Your task to perform on an android device: turn on translation in the chrome app Image 0: 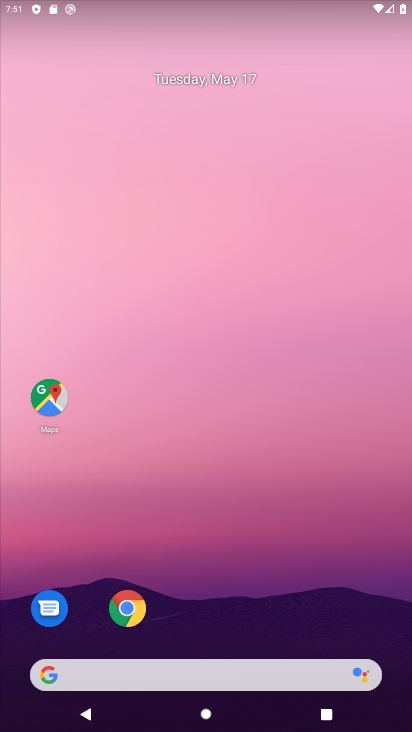
Step 0: click (132, 612)
Your task to perform on an android device: turn on translation in the chrome app Image 1: 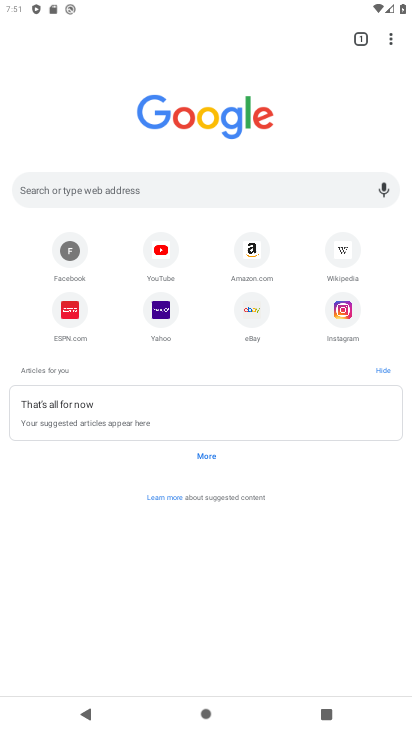
Step 1: click (388, 38)
Your task to perform on an android device: turn on translation in the chrome app Image 2: 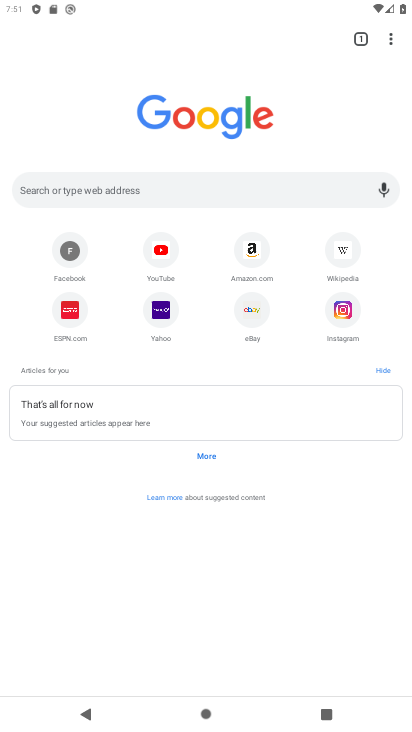
Step 2: click (393, 44)
Your task to perform on an android device: turn on translation in the chrome app Image 3: 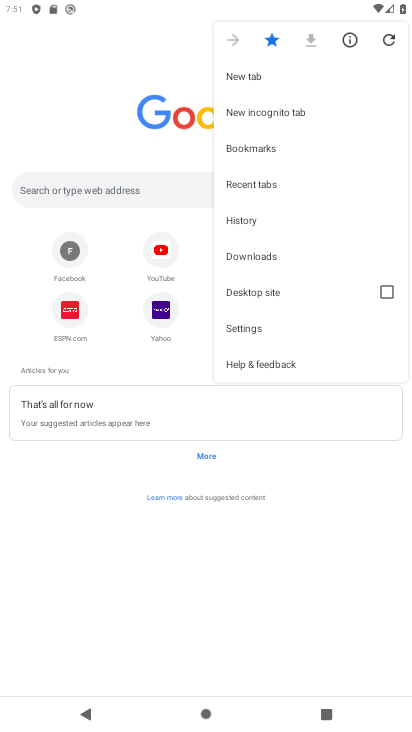
Step 3: click (254, 318)
Your task to perform on an android device: turn on translation in the chrome app Image 4: 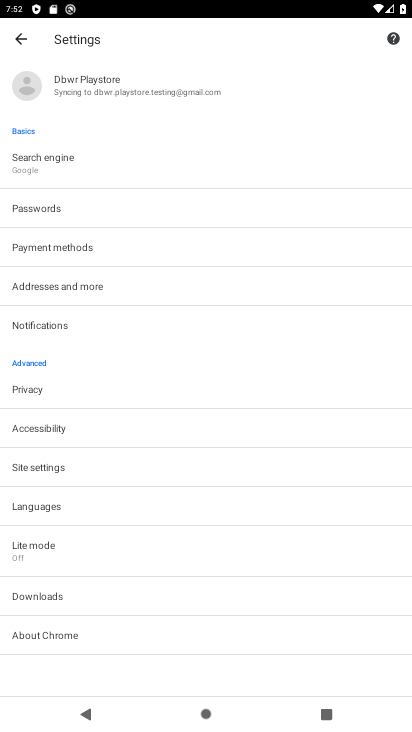
Step 4: click (31, 467)
Your task to perform on an android device: turn on translation in the chrome app Image 5: 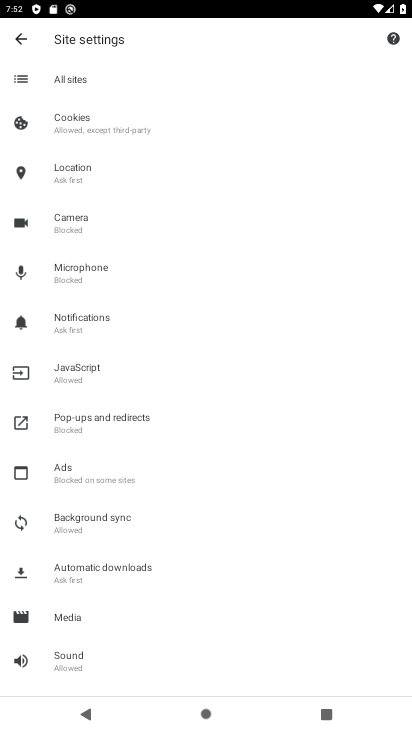
Step 5: click (19, 35)
Your task to perform on an android device: turn on translation in the chrome app Image 6: 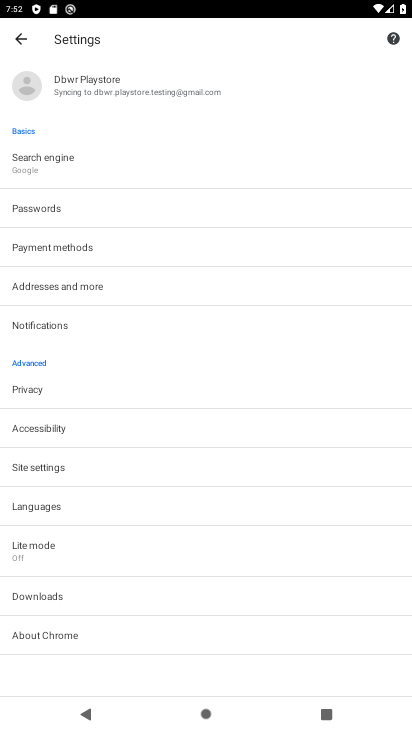
Step 6: click (35, 498)
Your task to perform on an android device: turn on translation in the chrome app Image 7: 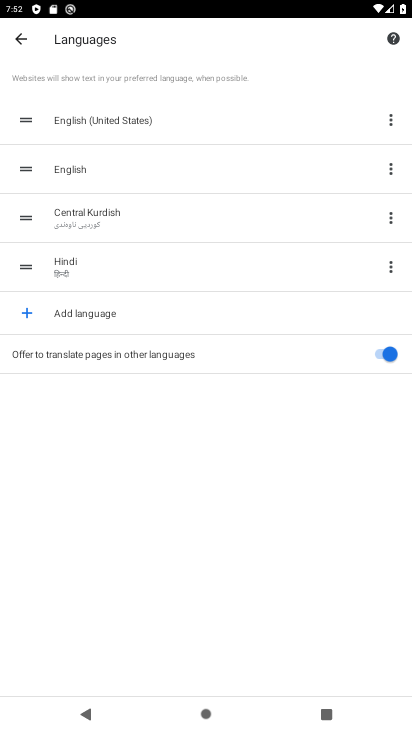
Step 7: task complete